Your task to perform on an android device: Open network settings Image 0: 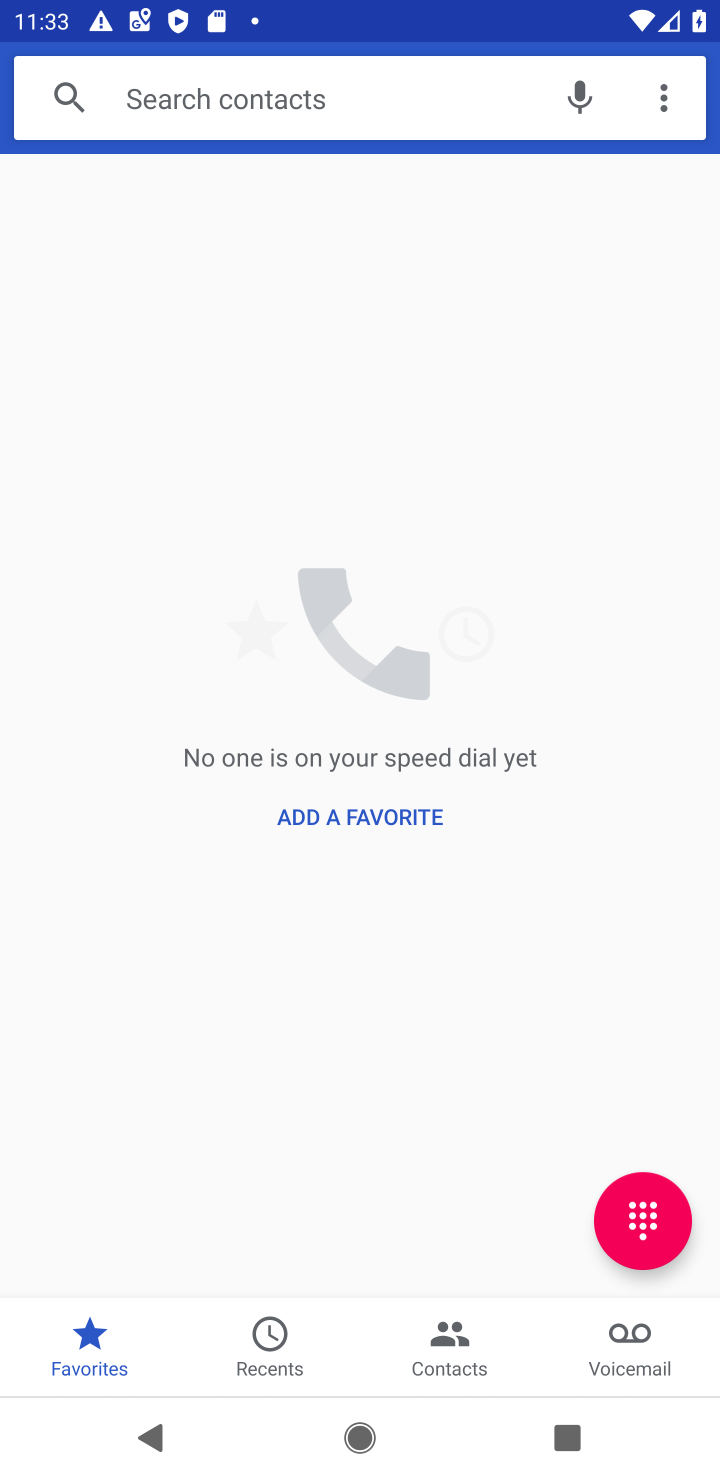
Step 0: press home button
Your task to perform on an android device: Open network settings Image 1: 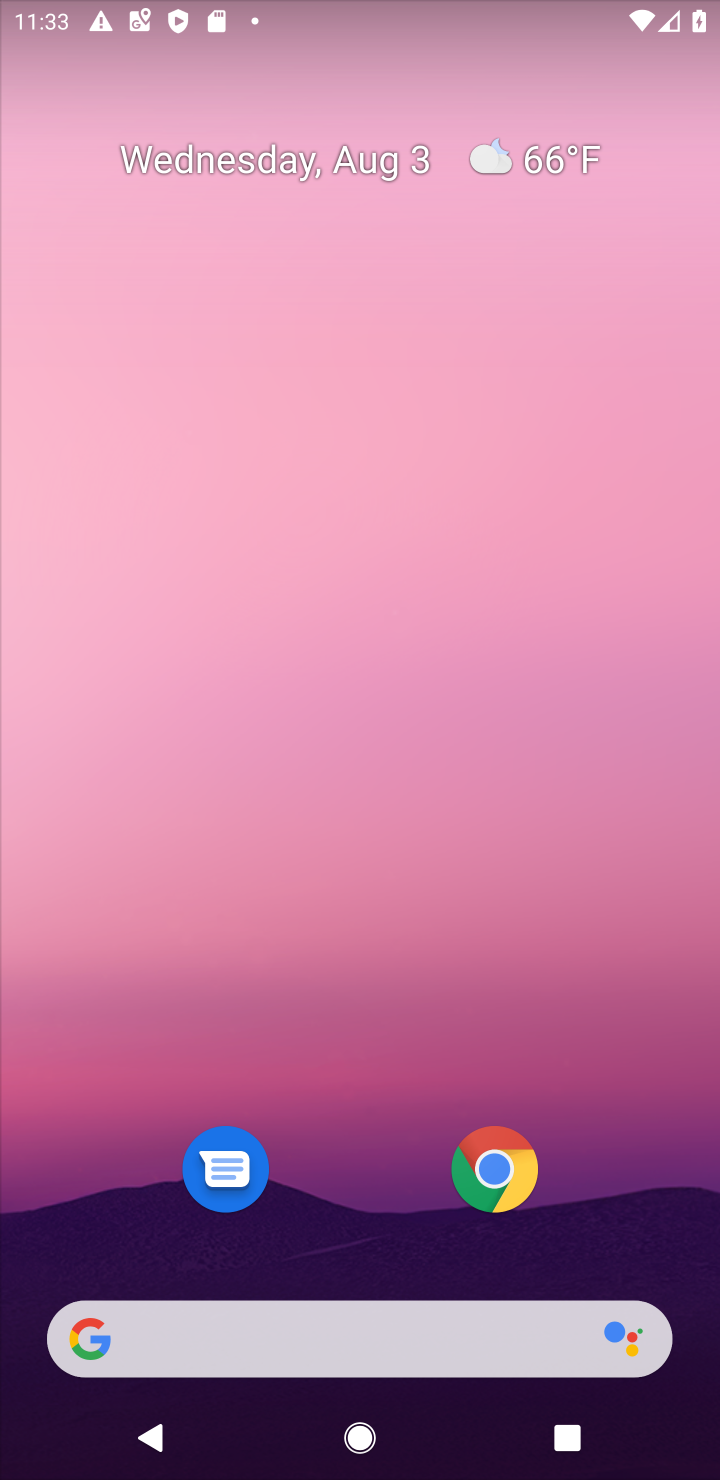
Step 1: drag from (356, 1133) to (351, 133)
Your task to perform on an android device: Open network settings Image 2: 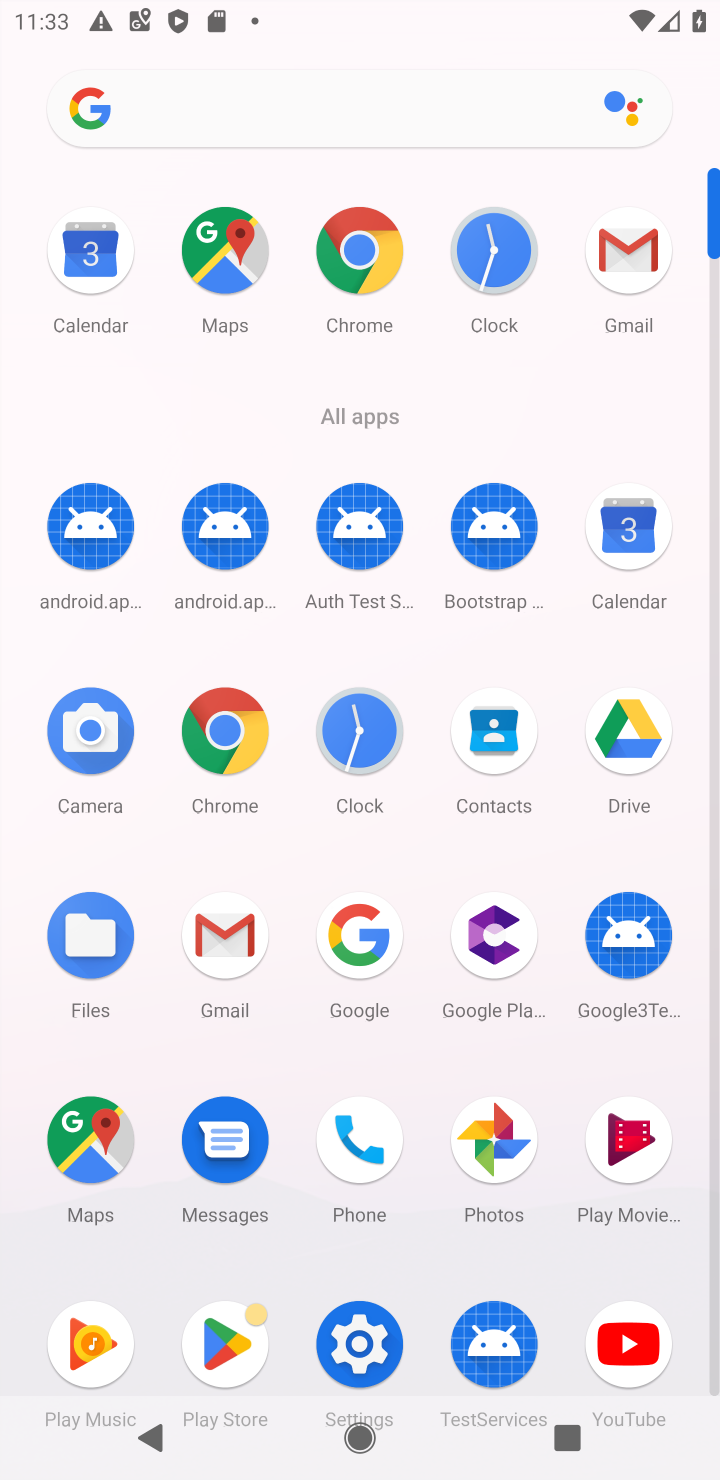
Step 2: click (350, 1348)
Your task to perform on an android device: Open network settings Image 3: 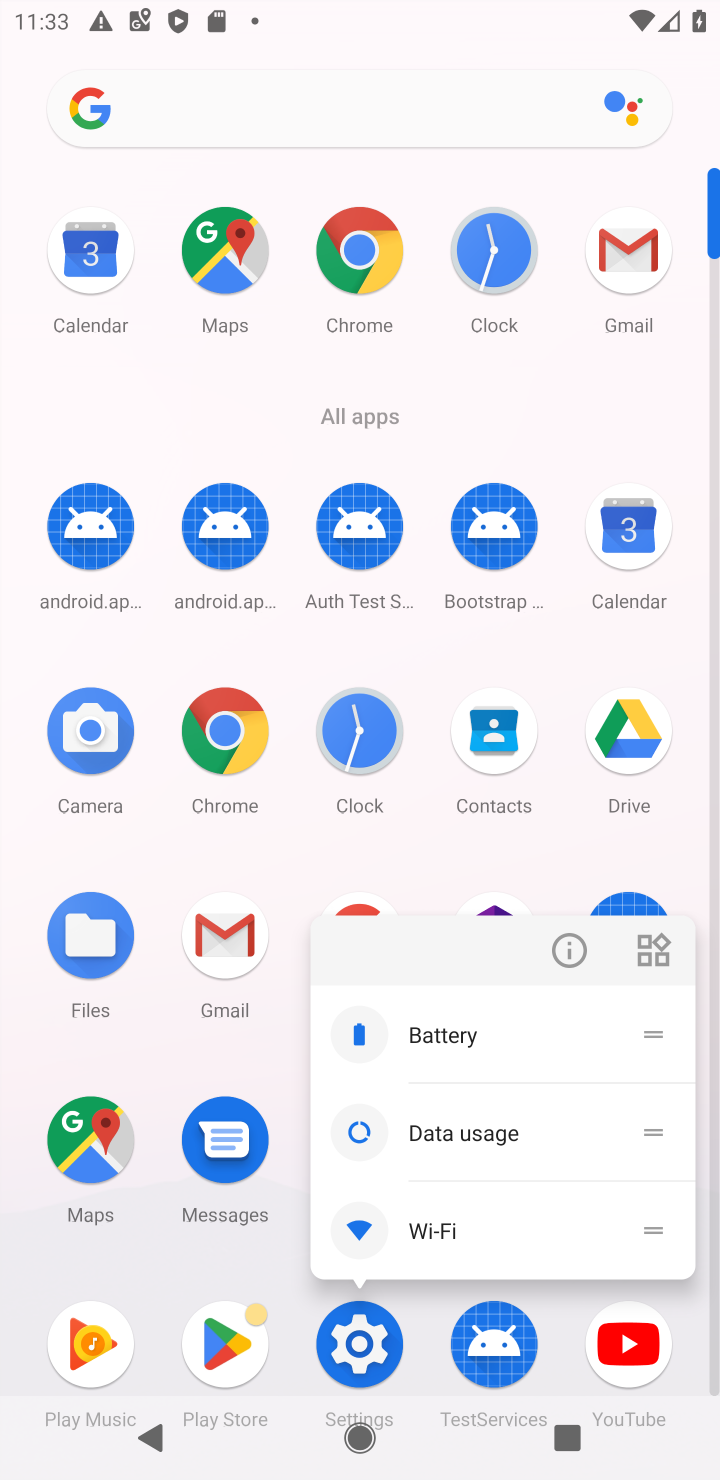
Step 3: click (350, 1348)
Your task to perform on an android device: Open network settings Image 4: 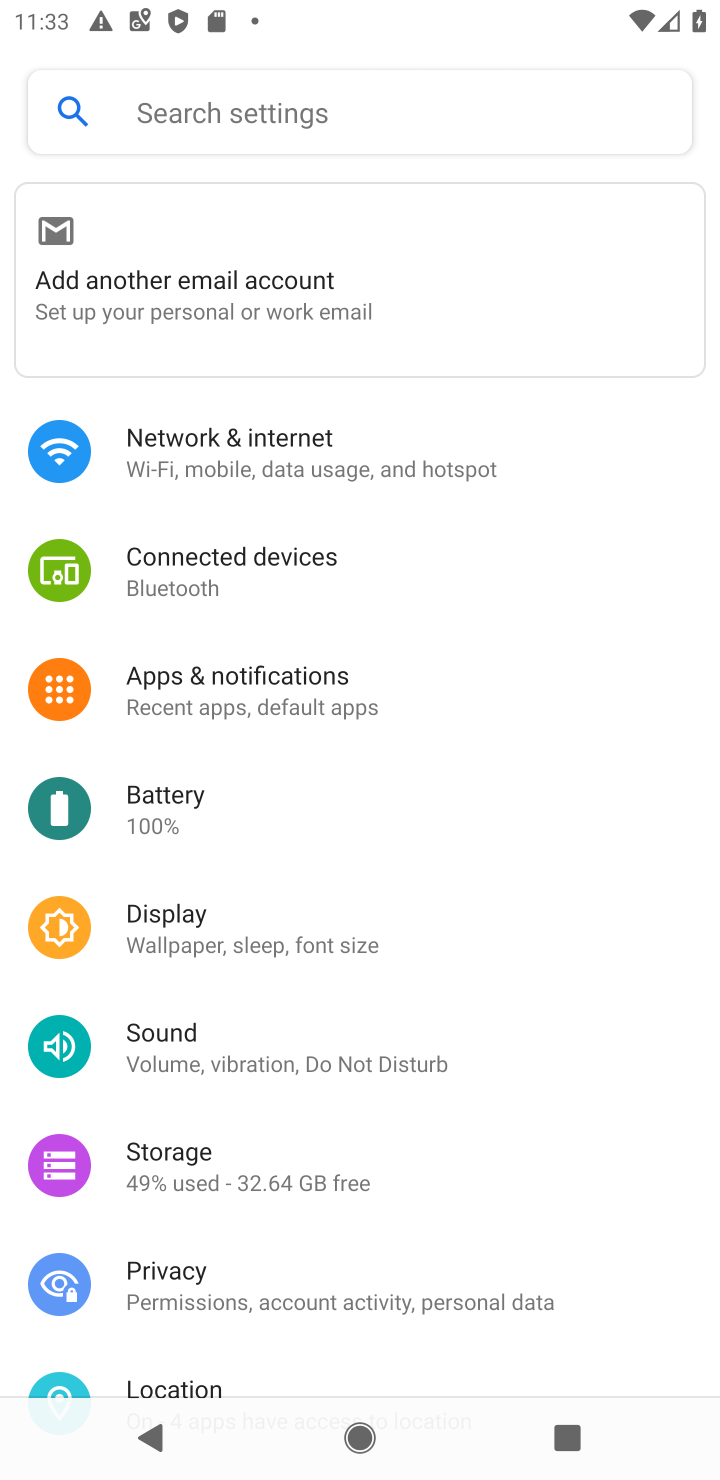
Step 4: click (198, 460)
Your task to perform on an android device: Open network settings Image 5: 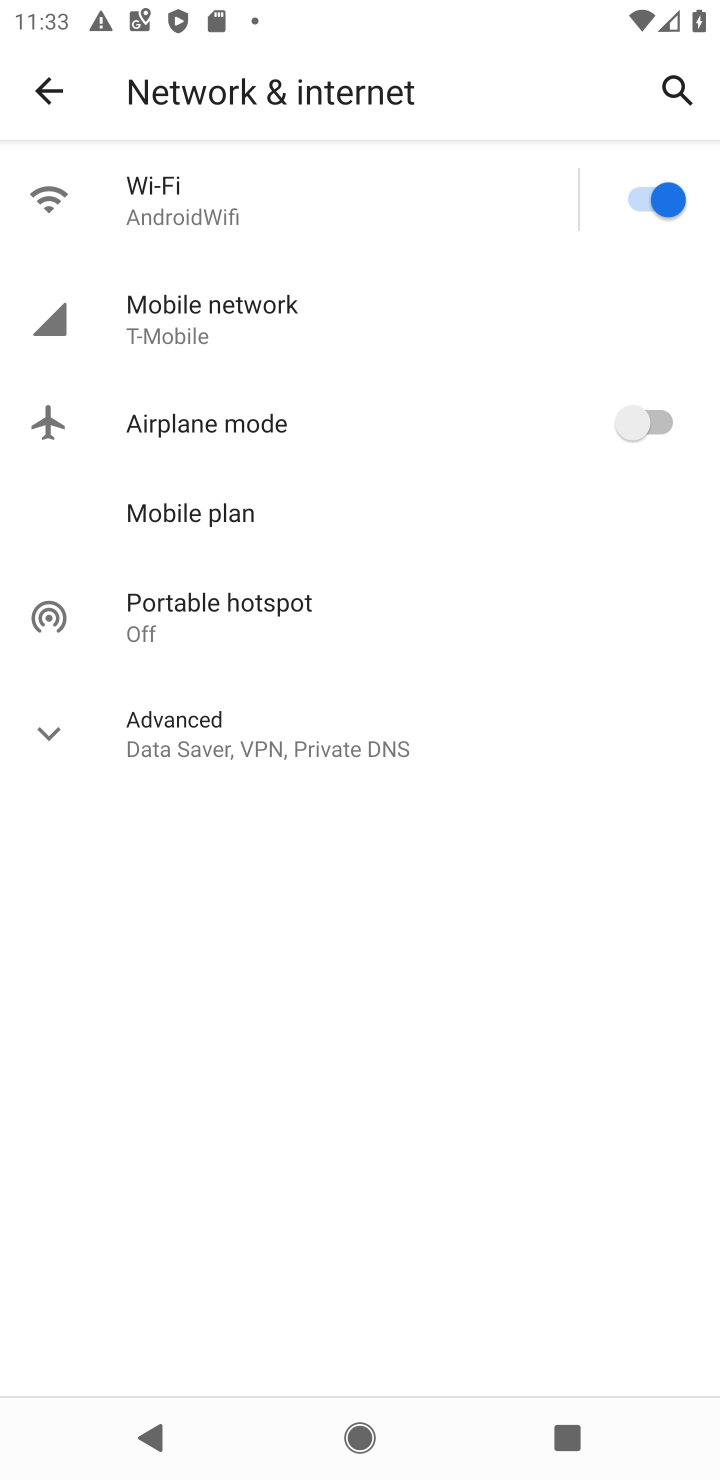
Step 5: click (170, 343)
Your task to perform on an android device: Open network settings Image 6: 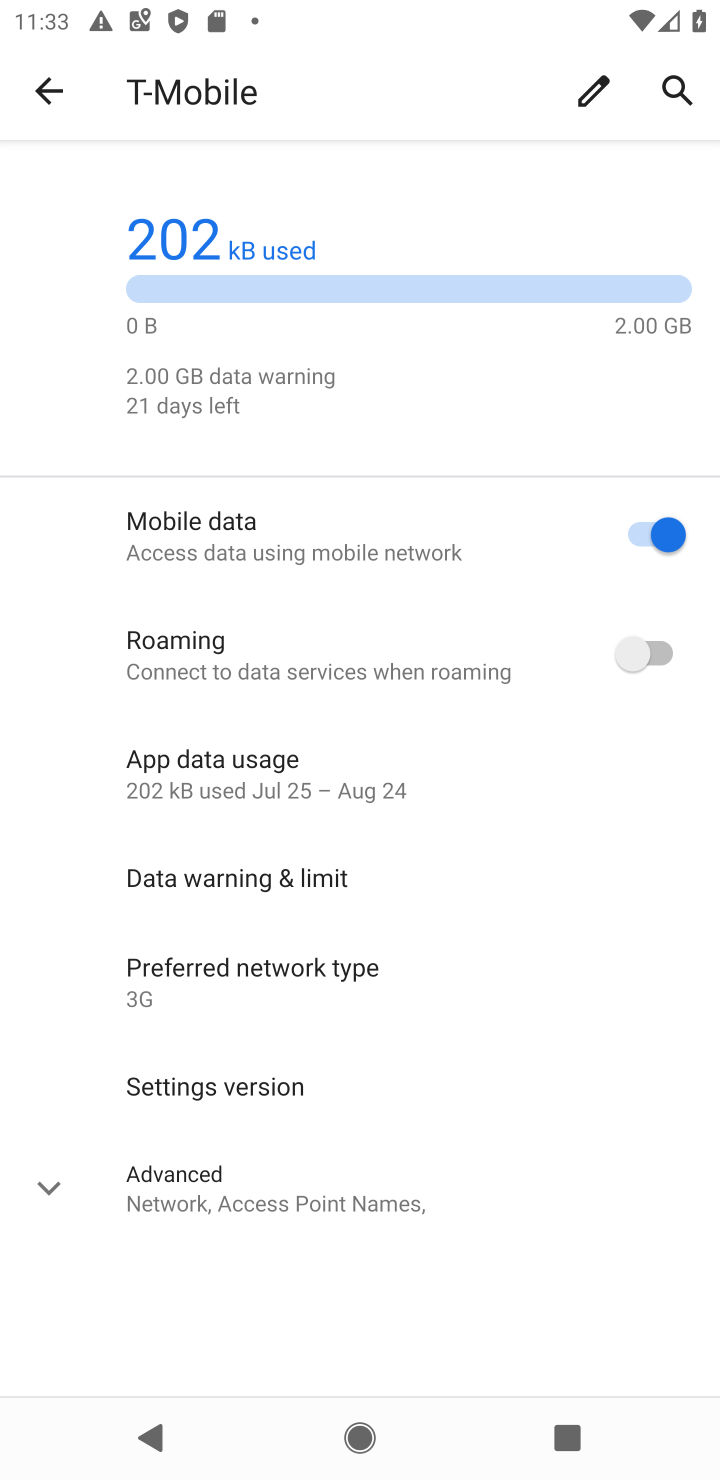
Step 6: task complete